Your task to perform on an android device: manage bookmarks in the chrome app Image 0: 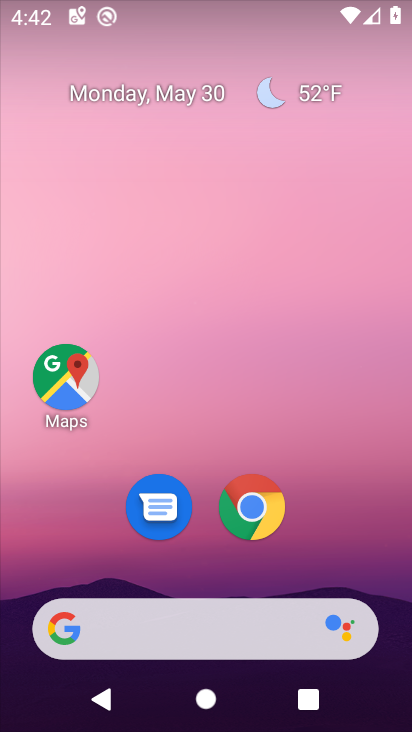
Step 0: click (255, 512)
Your task to perform on an android device: manage bookmarks in the chrome app Image 1: 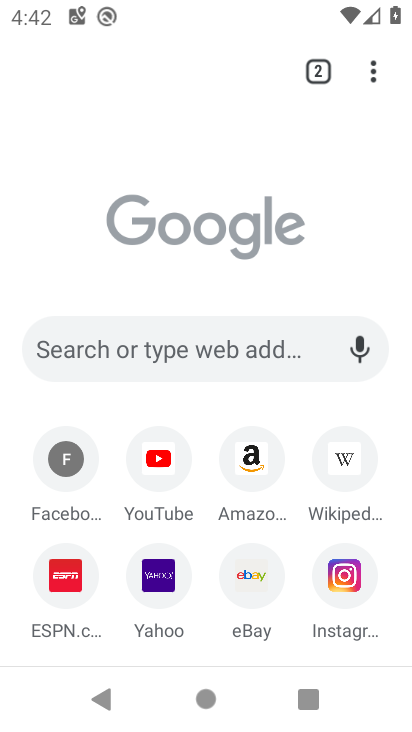
Step 1: task complete